Your task to perform on an android device: Open Android settings Image 0: 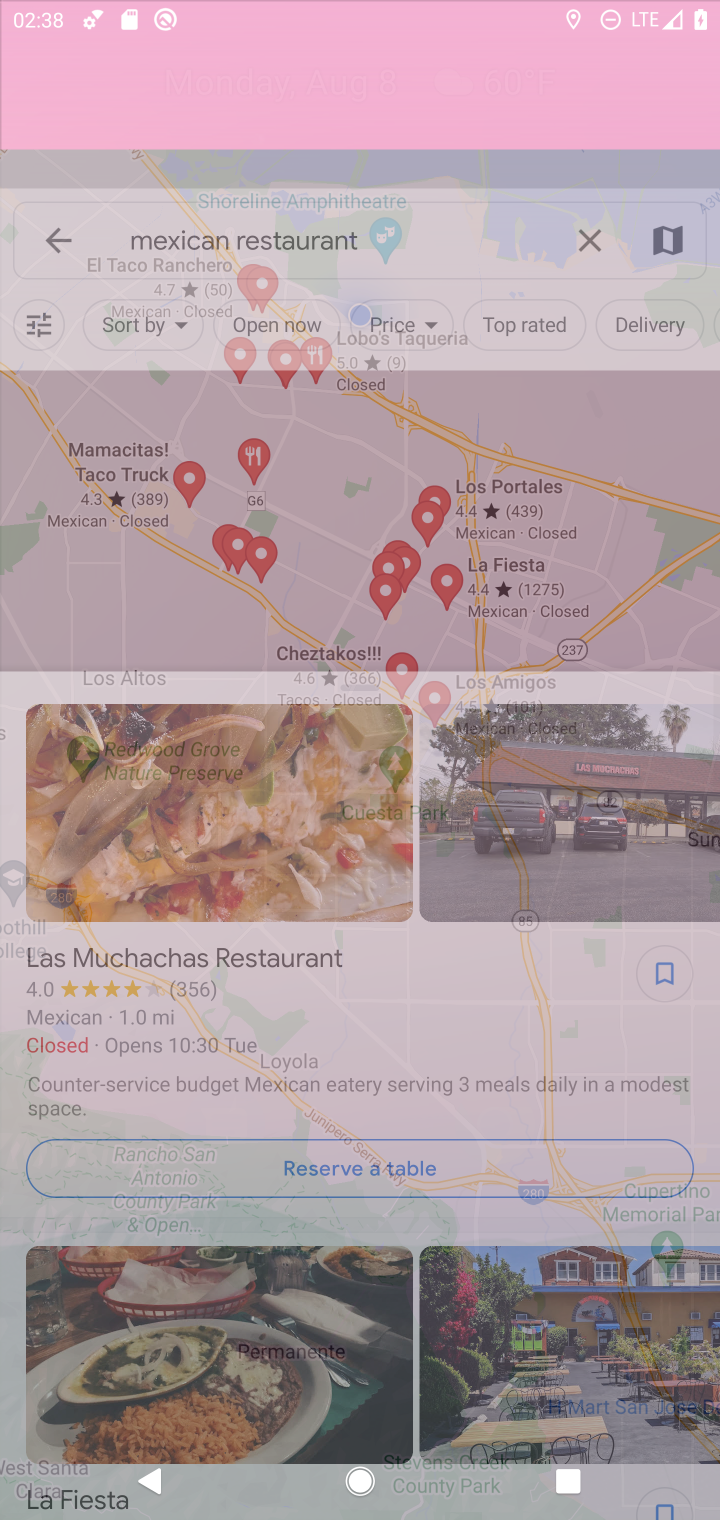
Step 0: press home button
Your task to perform on an android device: Open Android settings Image 1: 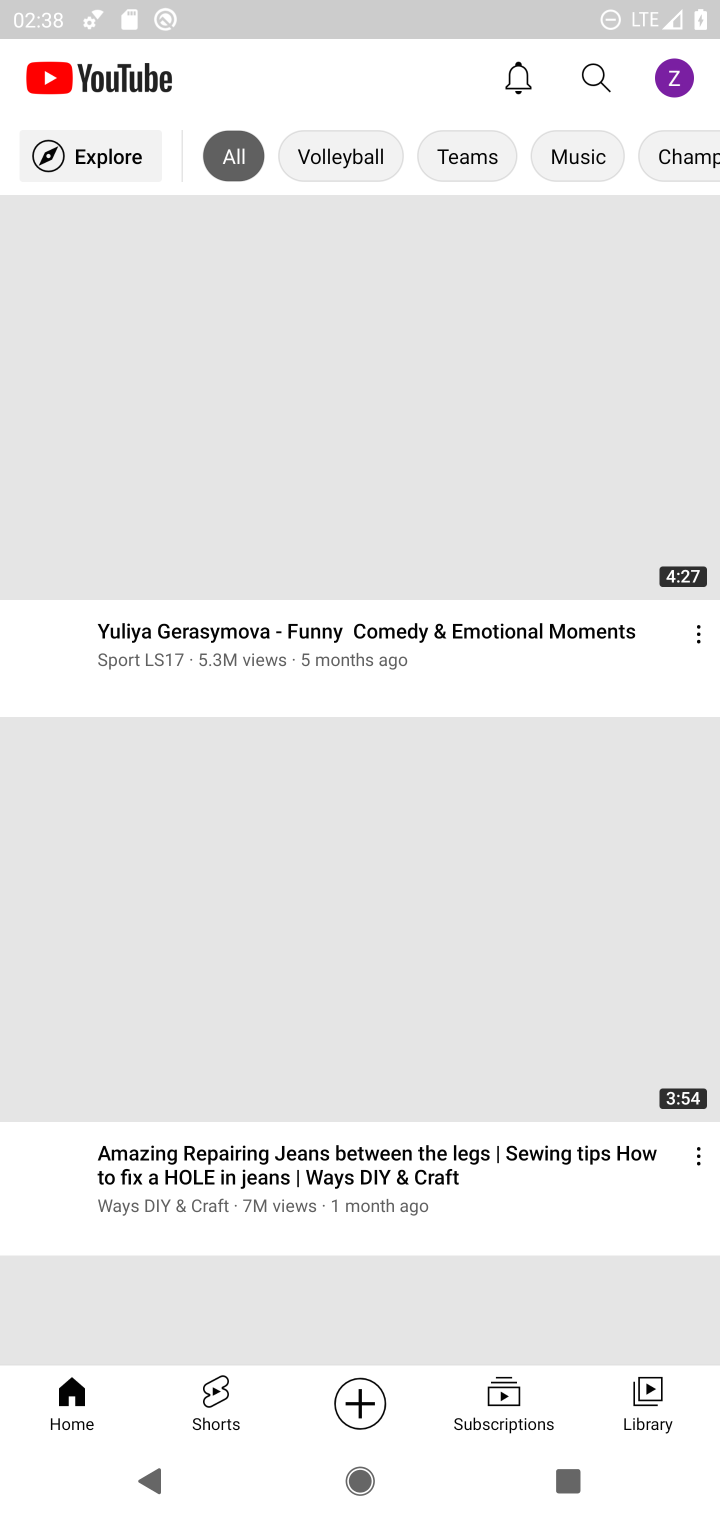
Step 1: press home button
Your task to perform on an android device: Open Android settings Image 2: 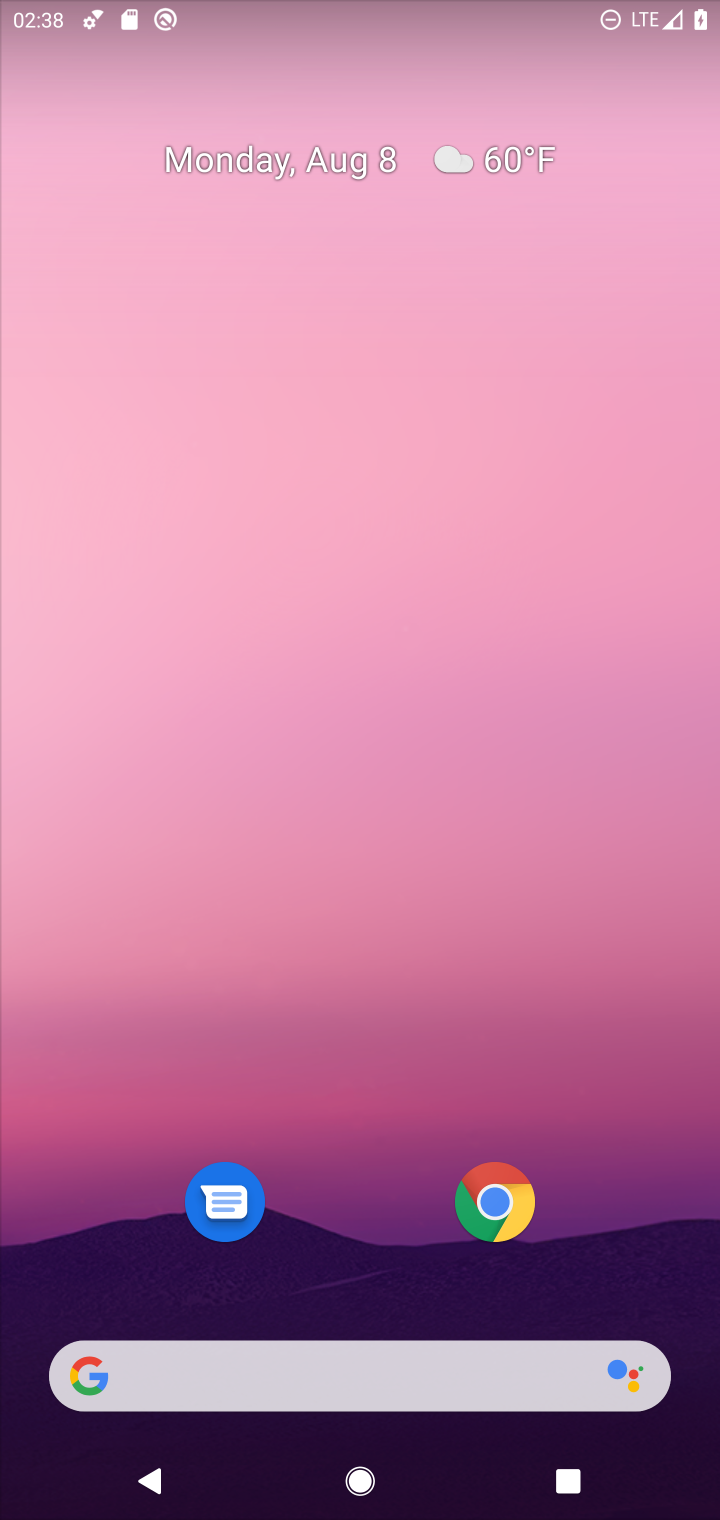
Step 2: drag from (391, 1184) to (417, 349)
Your task to perform on an android device: Open Android settings Image 3: 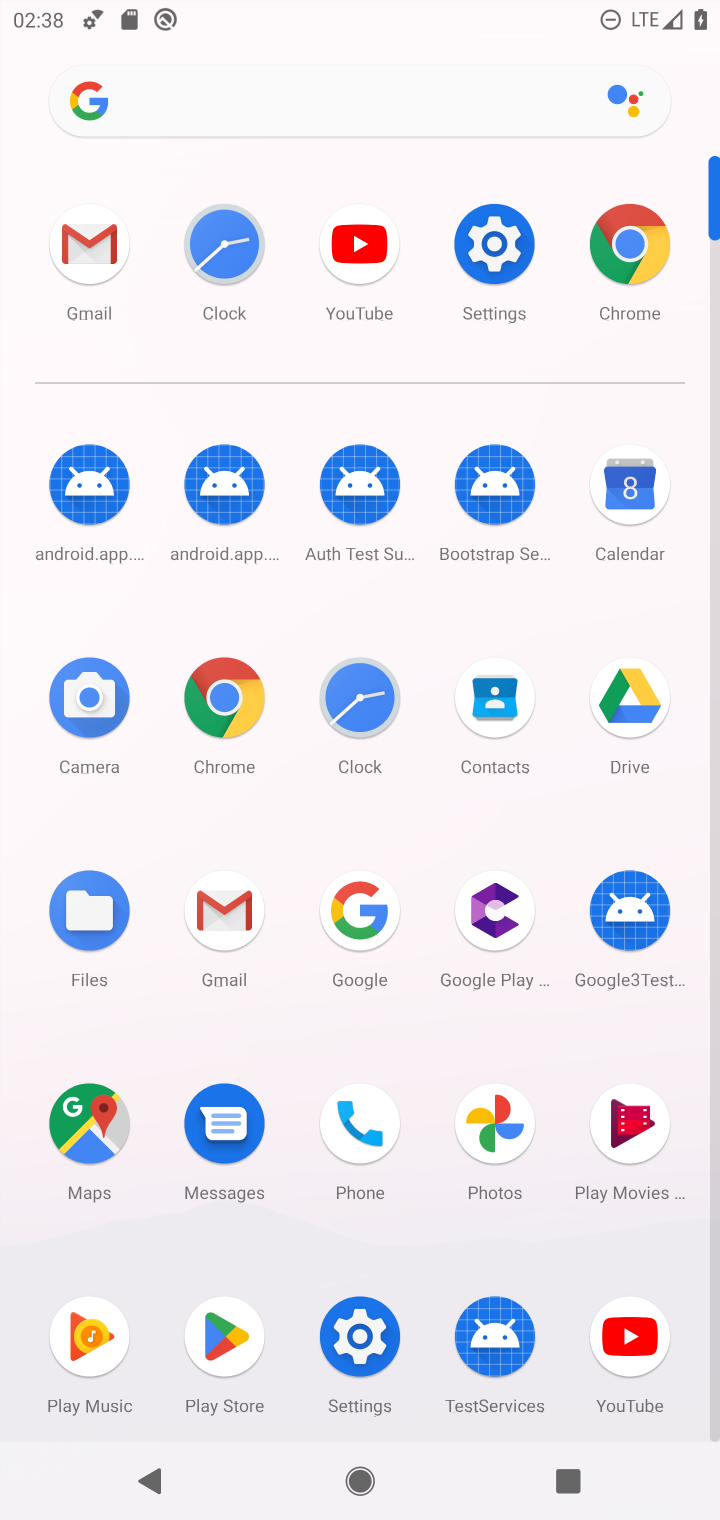
Step 3: click (504, 259)
Your task to perform on an android device: Open Android settings Image 4: 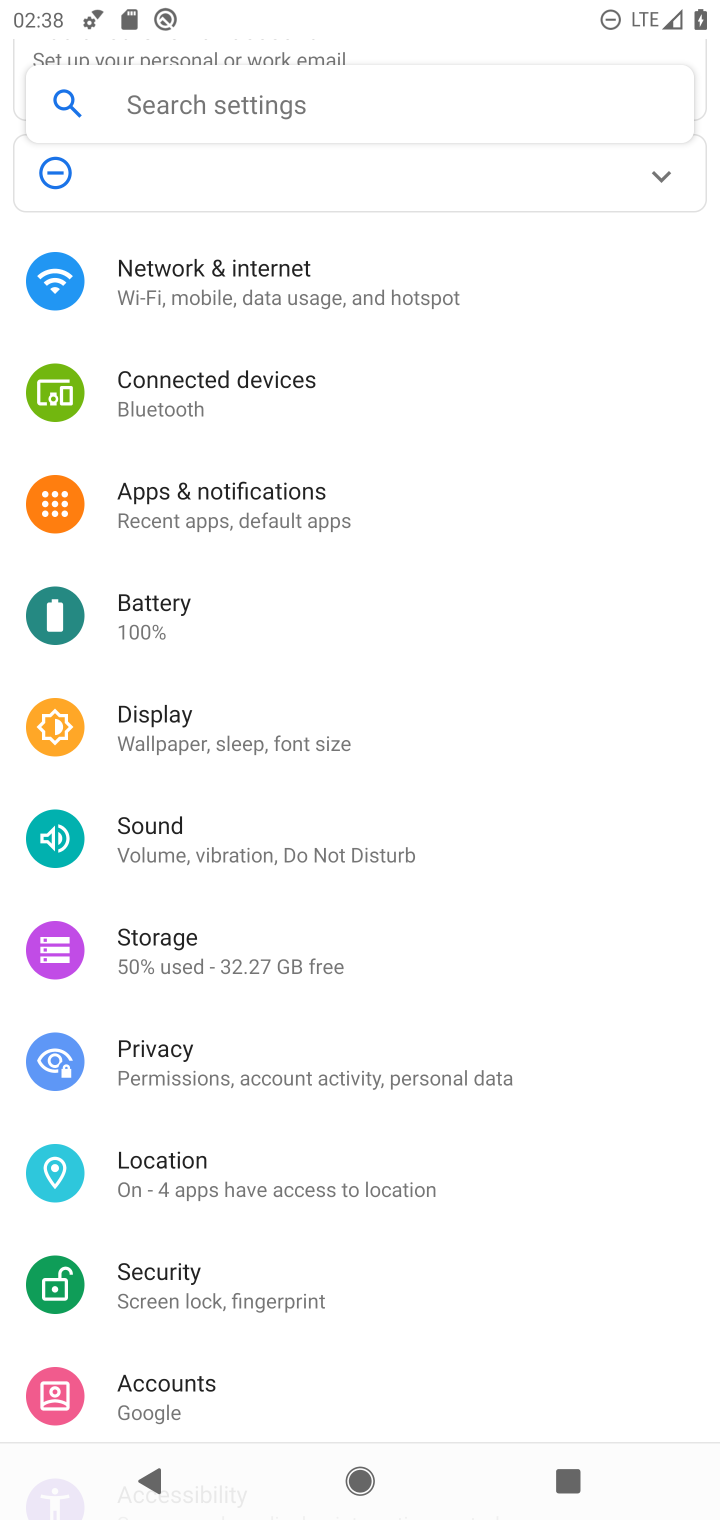
Step 4: drag from (591, 832) to (616, 594)
Your task to perform on an android device: Open Android settings Image 5: 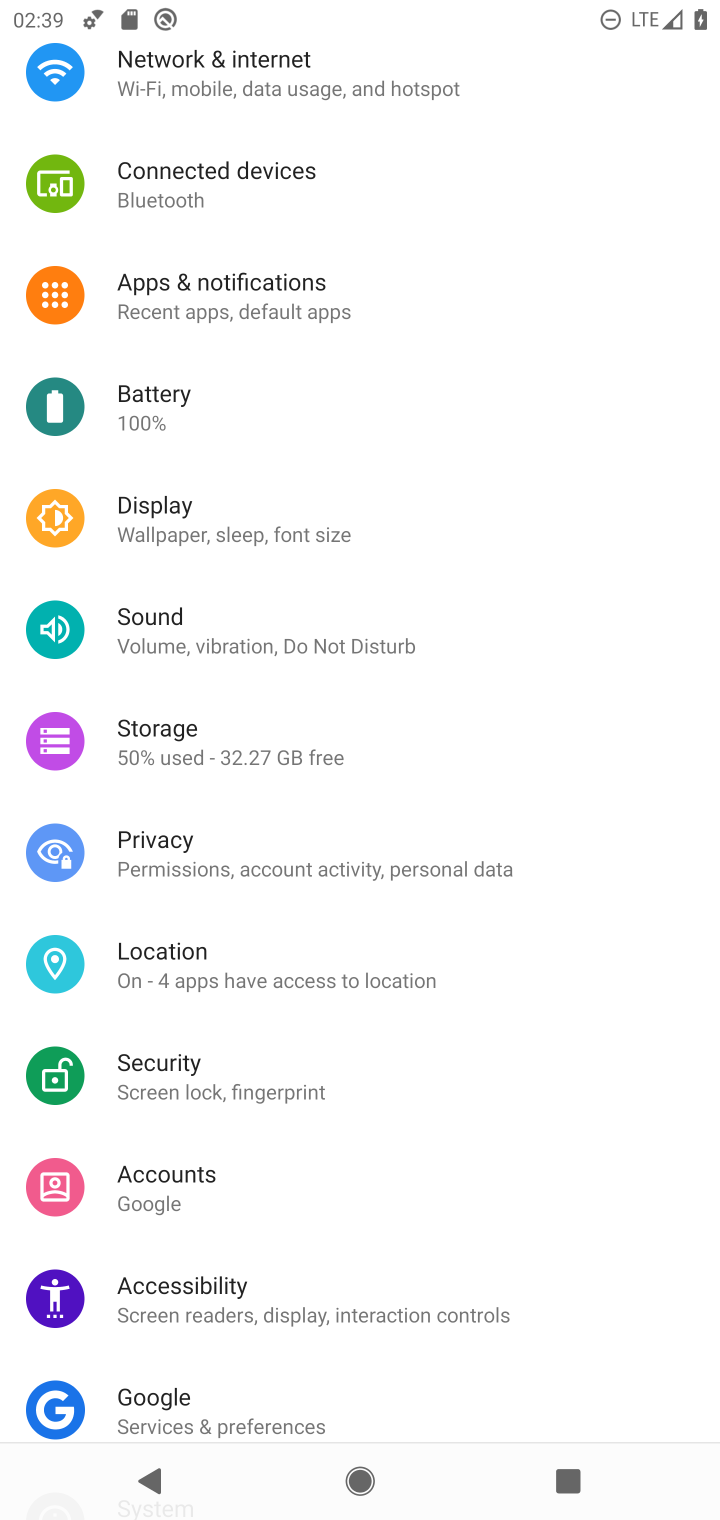
Step 5: drag from (626, 1139) to (618, 879)
Your task to perform on an android device: Open Android settings Image 6: 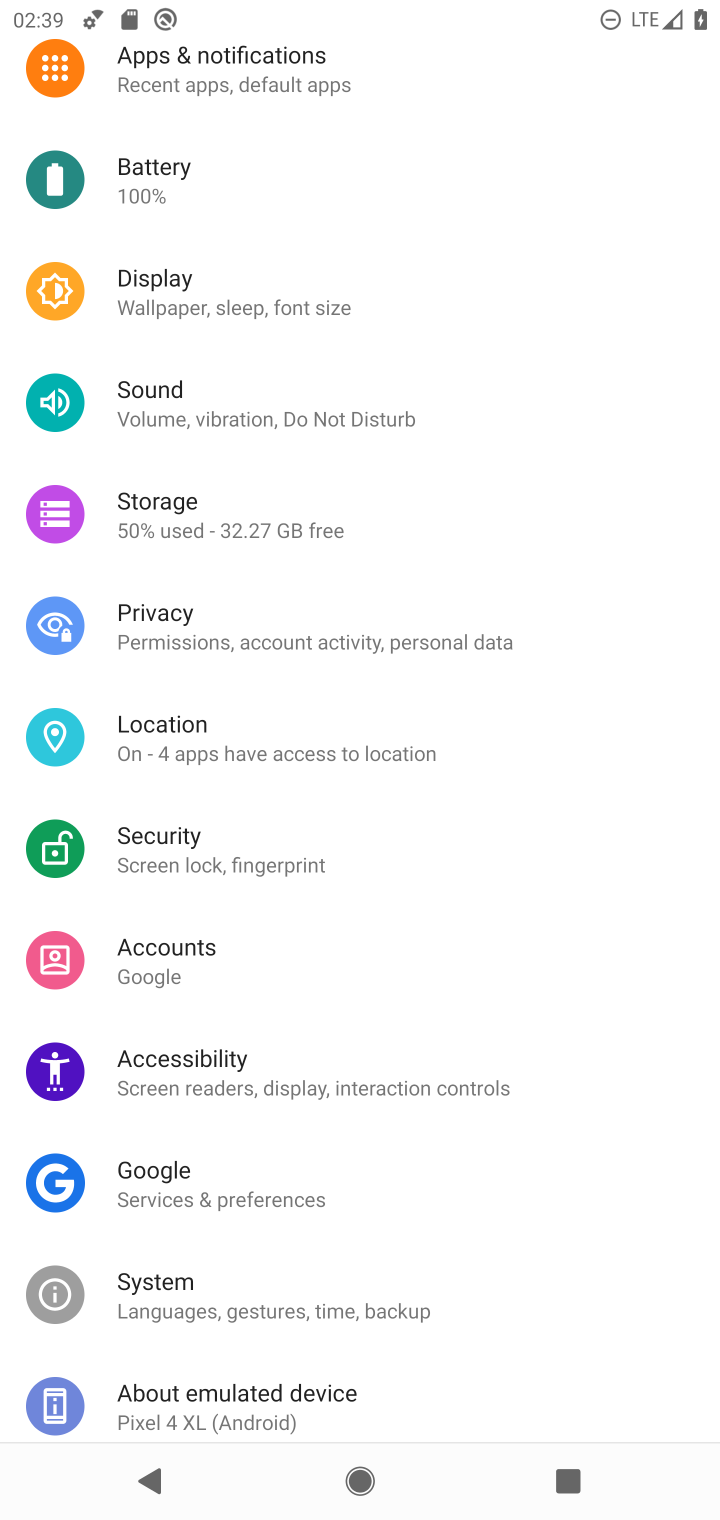
Step 6: drag from (586, 1207) to (588, 867)
Your task to perform on an android device: Open Android settings Image 7: 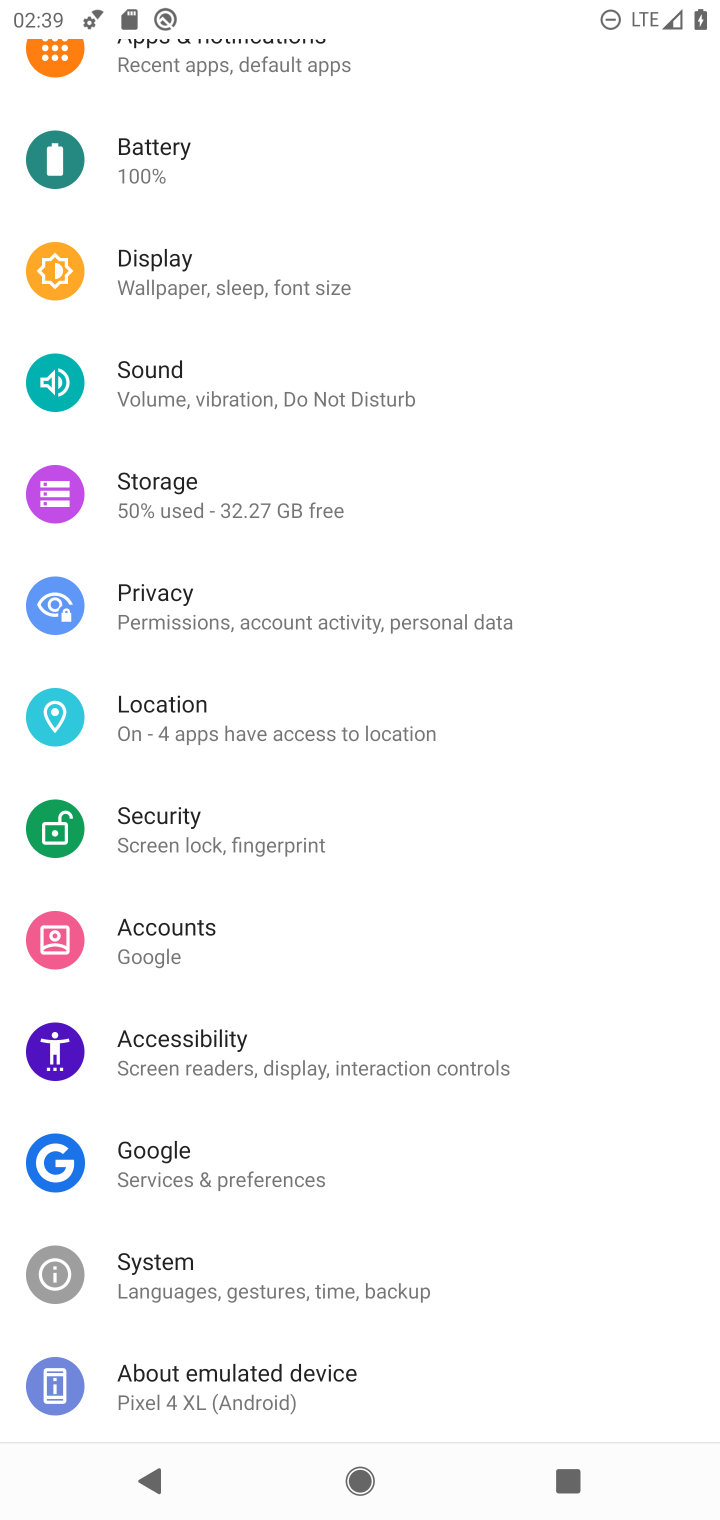
Step 7: click (403, 1275)
Your task to perform on an android device: Open Android settings Image 8: 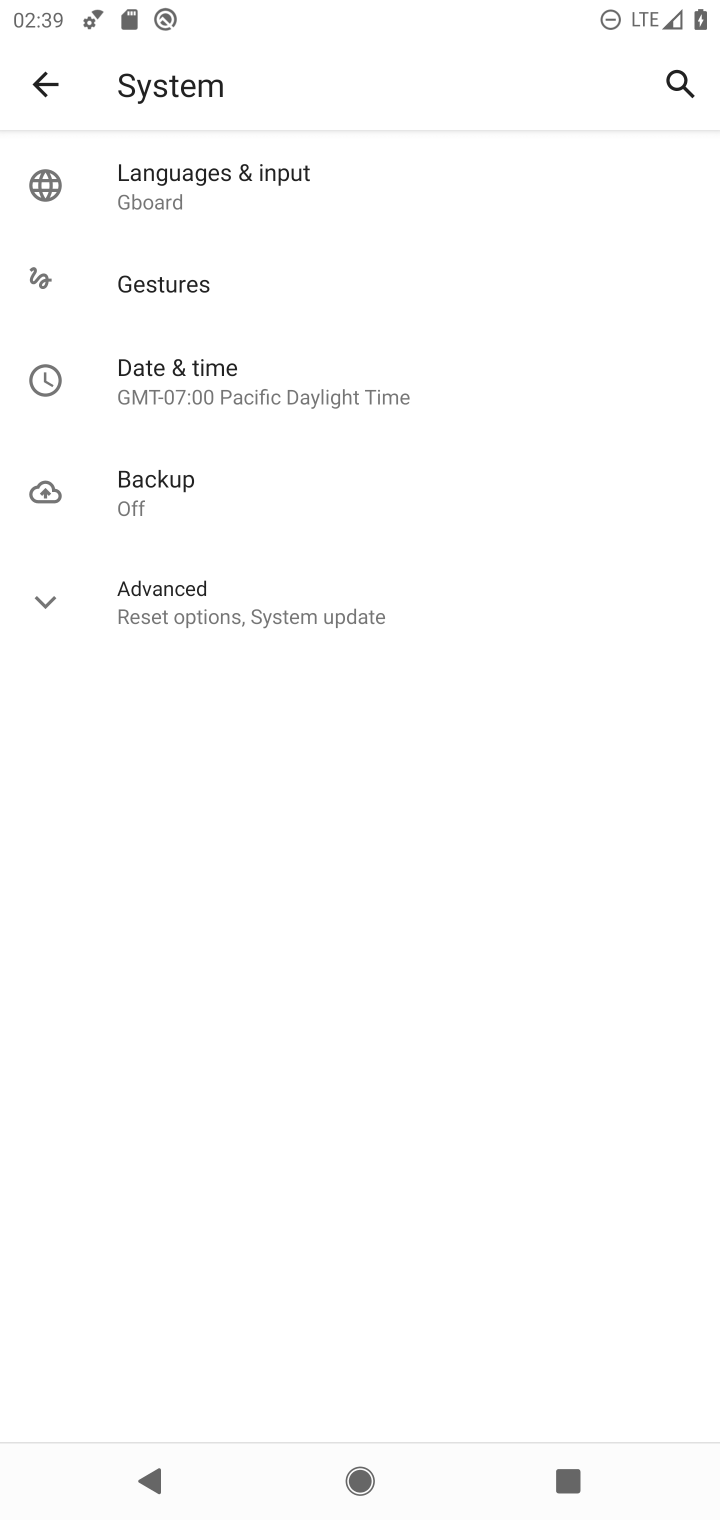
Step 8: click (237, 604)
Your task to perform on an android device: Open Android settings Image 9: 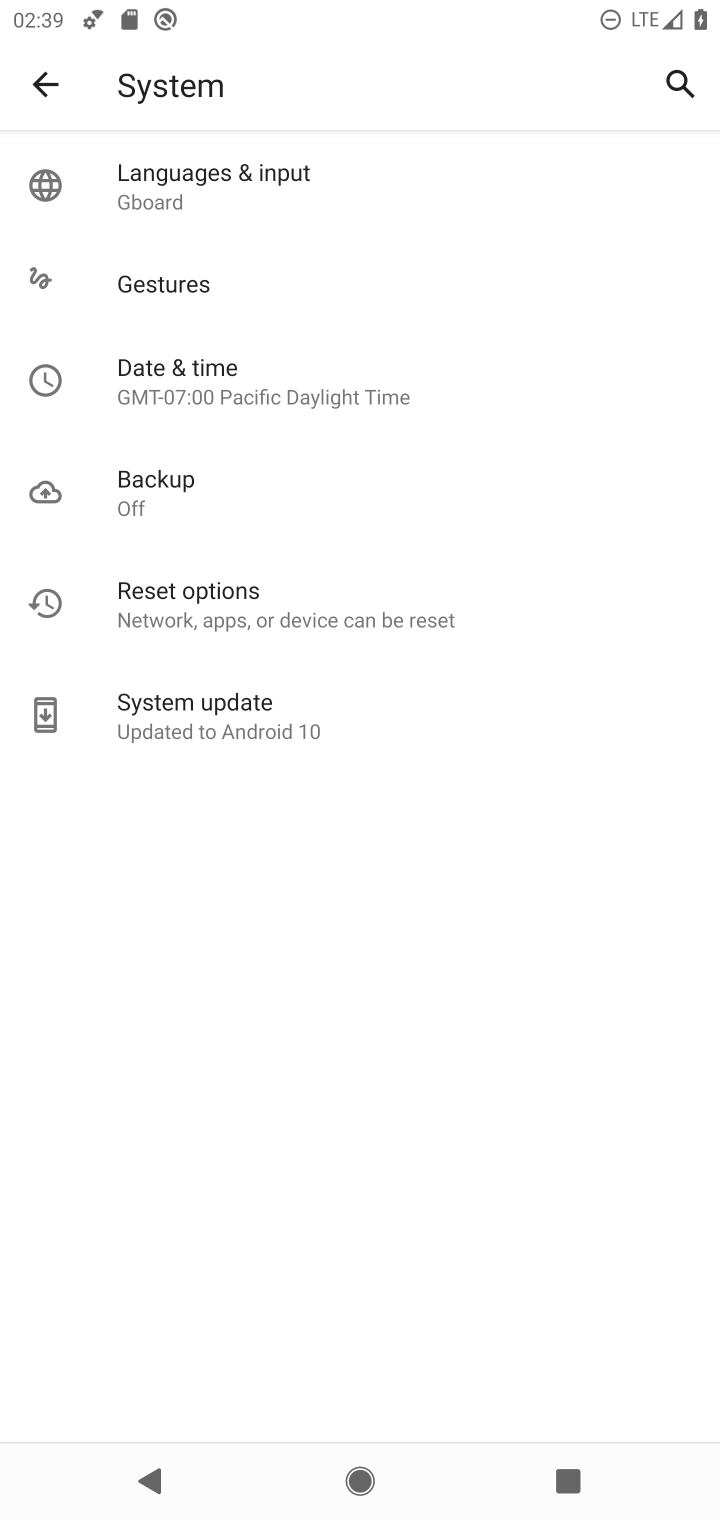
Step 9: task complete